Your task to perform on an android device: Open the Play Movies app and select the watchlist tab. Image 0: 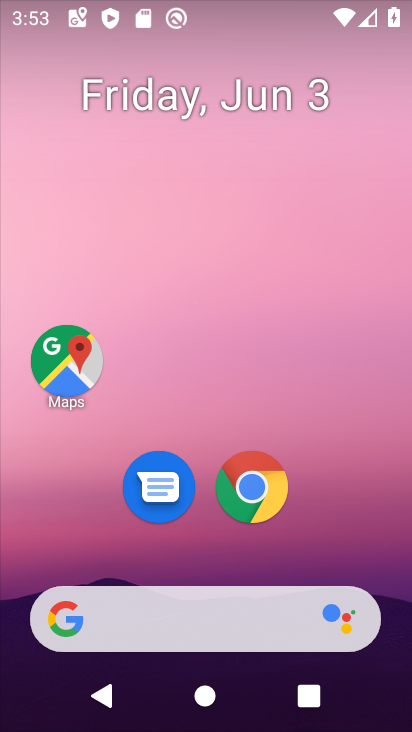
Step 0: drag from (212, 501) to (148, 2)
Your task to perform on an android device: Open the Play Movies app and select the watchlist tab. Image 1: 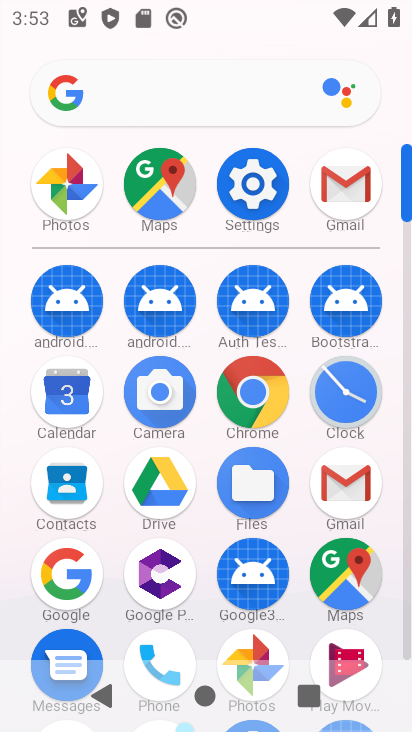
Step 1: drag from (198, 630) to (200, 154)
Your task to perform on an android device: Open the Play Movies app and select the watchlist tab. Image 2: 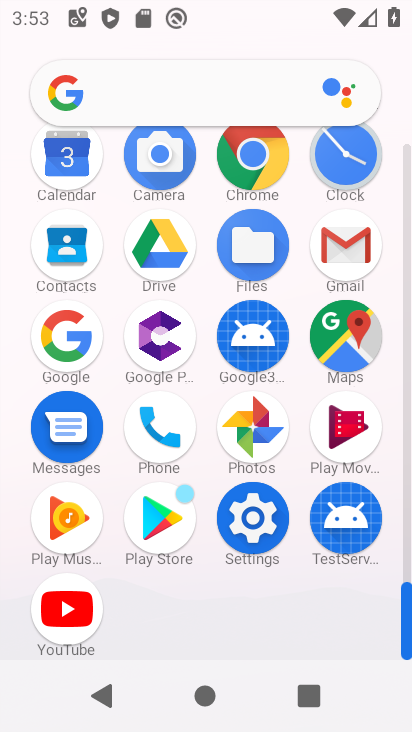
Step 2: click (334, 426)
Your task to perform on an android device: Open the Play Movies app and select the watchlist tab. Image 3: 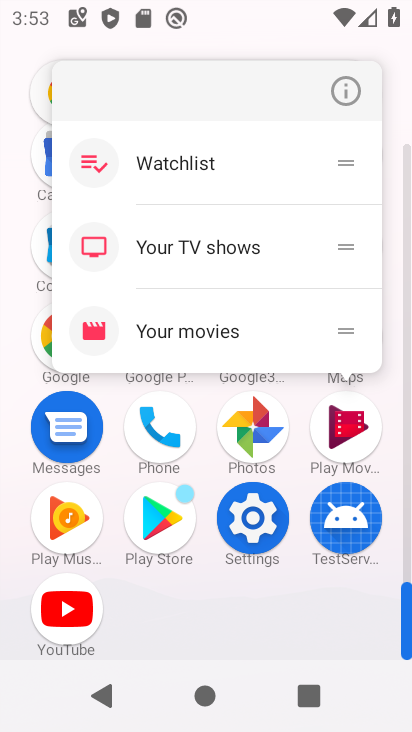
Step 3: click (336, 78)
Your task to perform on an android device: Open the Play Movies app and select the watchlist tab. Image 4: 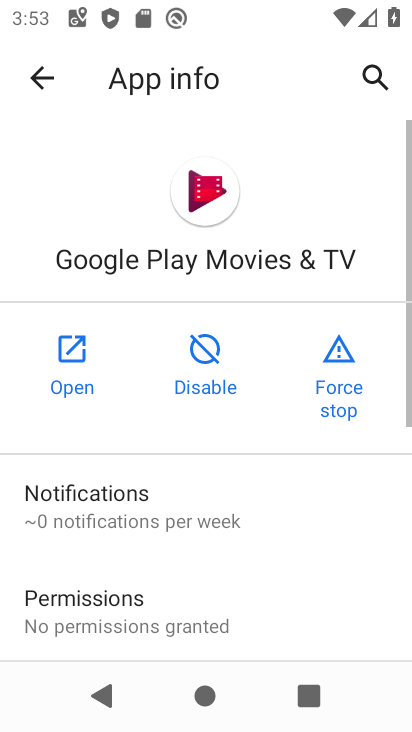
Step 4: click (72, 325)
Your task to perform on an android device: Open the Play Movies app and select the watchlist tab. Image 5: 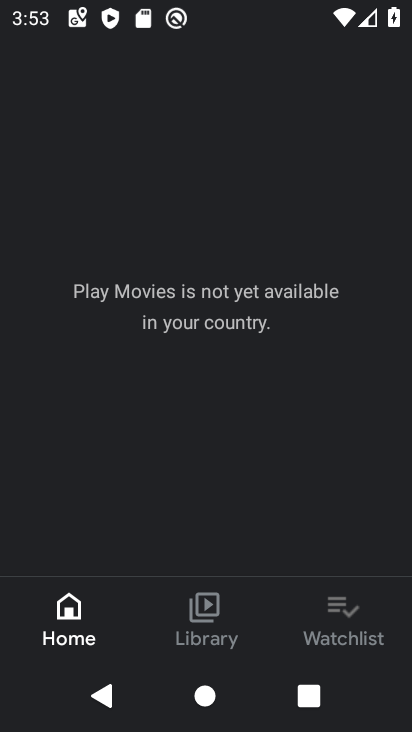
Step 5: drag from (244, 557) to (268, 177)
Your task to perform on an android device: Open the Play Movies app and select the watchlist tab. Image 6: 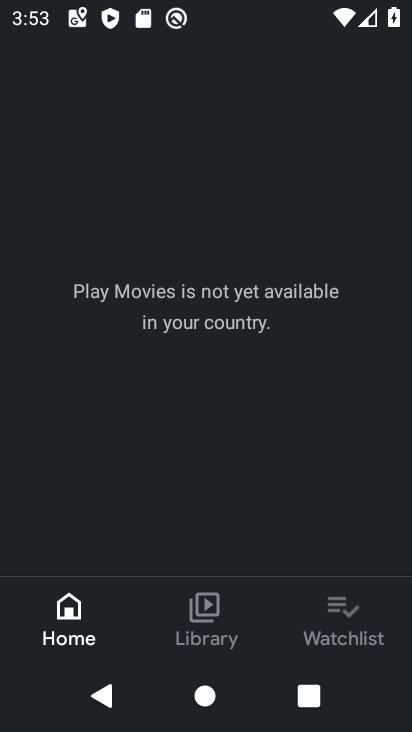
Step 6: click (342, 617)
Your task to perform on an android device: Open the Play Movies app and select the watchlist tab. Image 7: 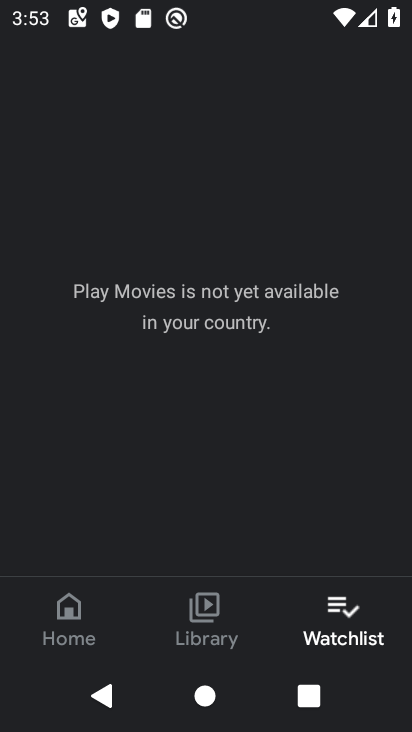
Step 7: task complete